Your task to perform on an android device: turn on data saver in the chrome app Image 0: 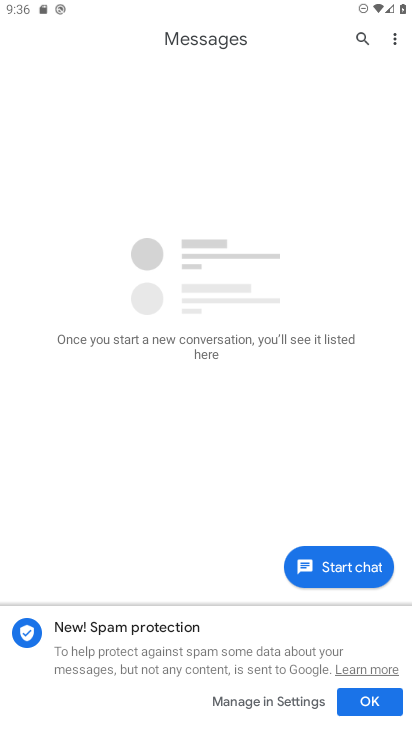
Step 0: press home button
Your task to perform on an android device: turn on data saver in the chrome app Image 1: 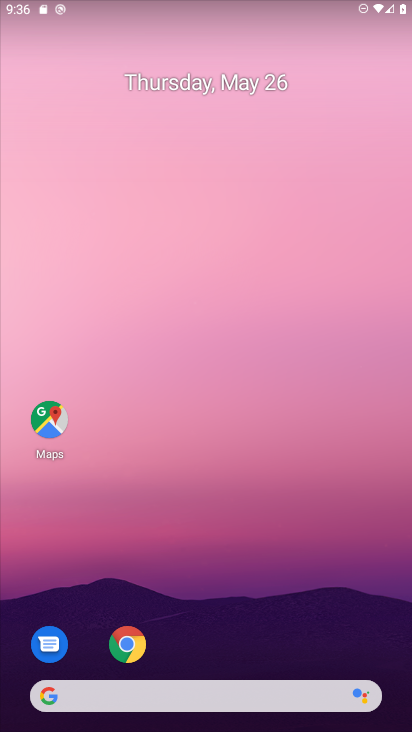
Step 1: click (147, 636)
Your task to perform on an android device: turn on data saver in the chrome app Image 2: 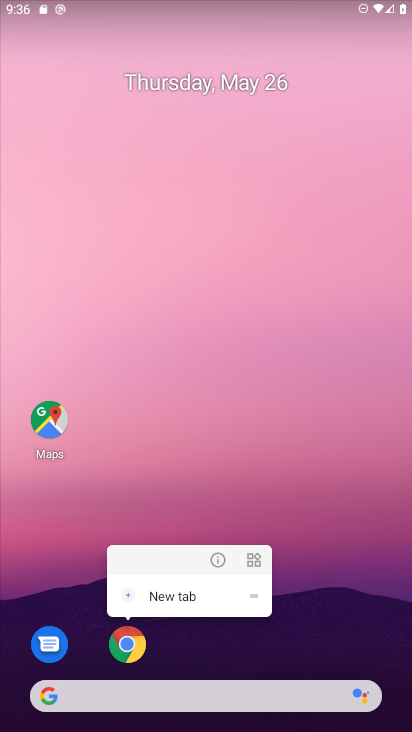
Step 2: click (133, 644)
Your task to perform on an android device: turn on data saver in the chrome app Image 3: 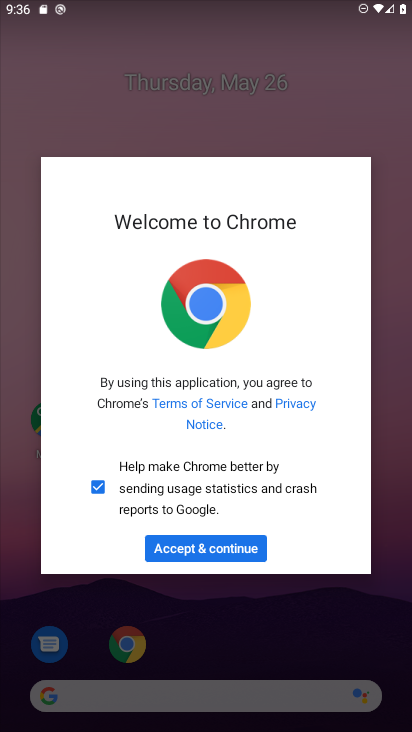
Step 3: click (210, 535)
Your task to perform on an android device: turn on data saver in the chrome app Image 4: 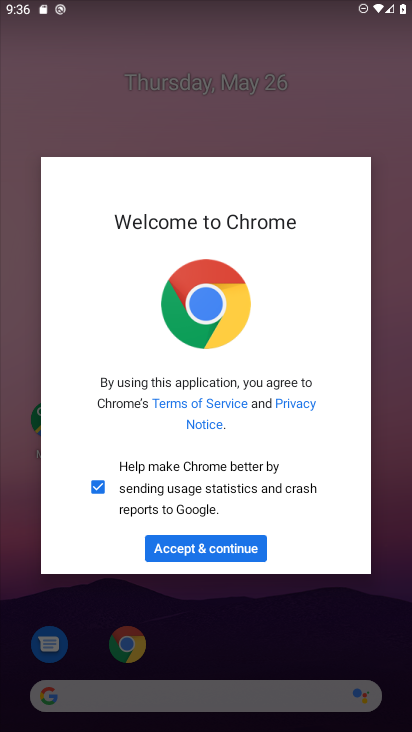
Step 4: click (212, 544)
Your task to perform on an android device: turn on data saver in the chrome app Image 5: 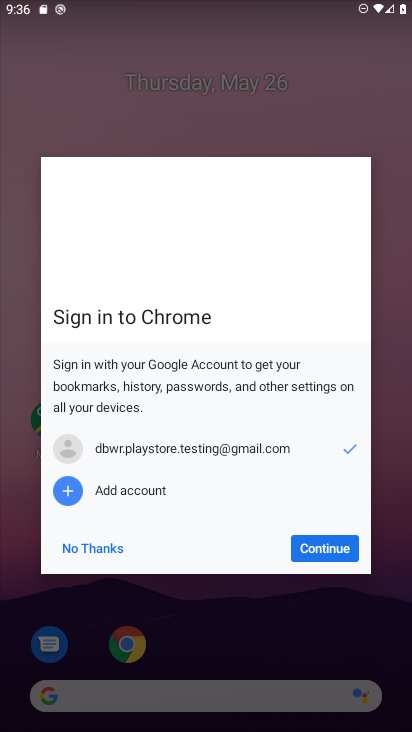
Step 5: click (325, 553)
Your task to perform on an android device: turn on data saver in the chrome app Image 6: 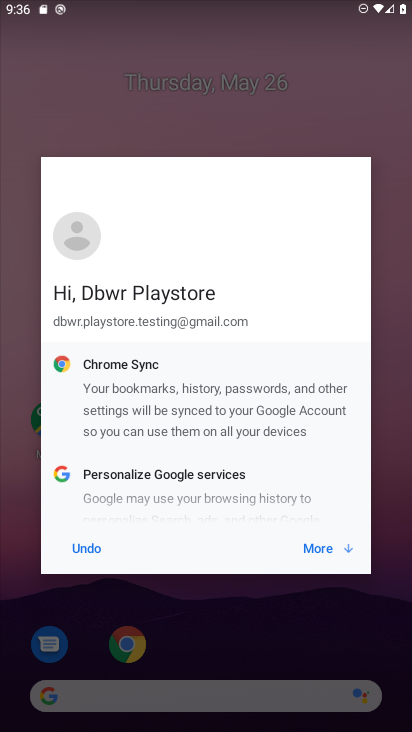
Step 6: click (305, 548)
Your task to perform on an android device: turn on data saver in the chrome app Image 7: 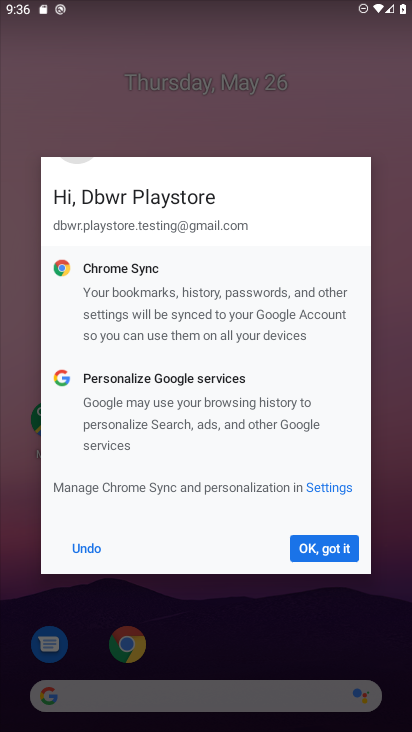
Step 7: click (292, 544)
Your task to perform on an android device: turn on data saver in the chrome app Image 8: 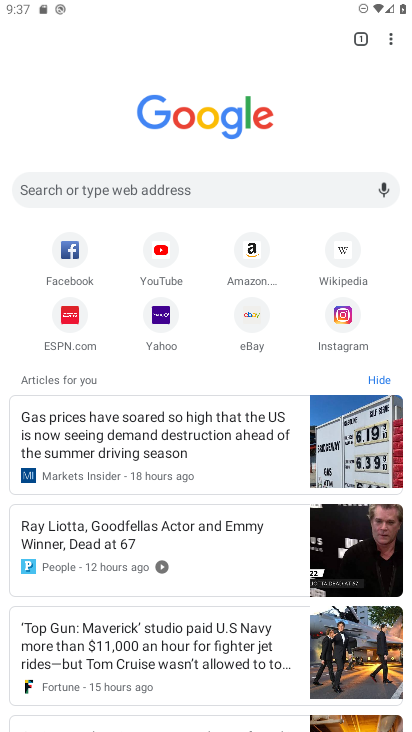
Step 8: drag from (399, 31) to (280, 329)
Your task to perform on an android device: turn on data saver in the chrome app Image 9: 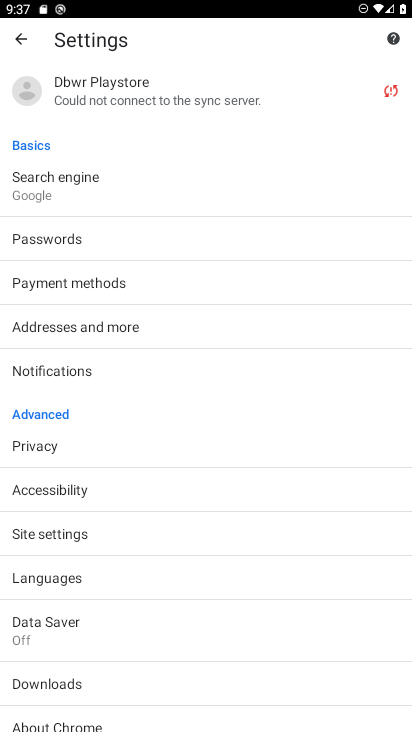
Step 9: click (116, 624)
Your task to perform on an android device: turn on data saver in the chrome app Image 10: 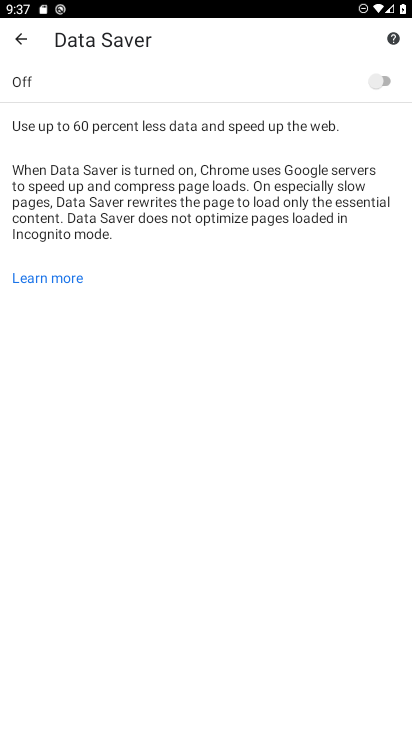
Step 10: click (394, 70)
Your task to perform on an android device: turn on data saver in the chrome app Image 11: 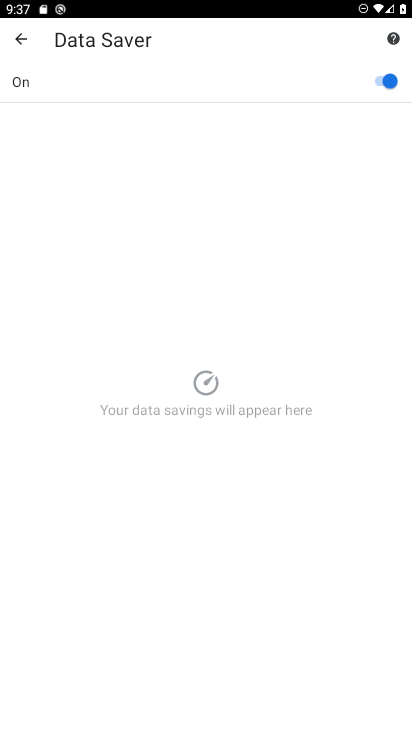
Step 11: task complete